Your task to perform on an android device: change the clock display to digital Image 0: 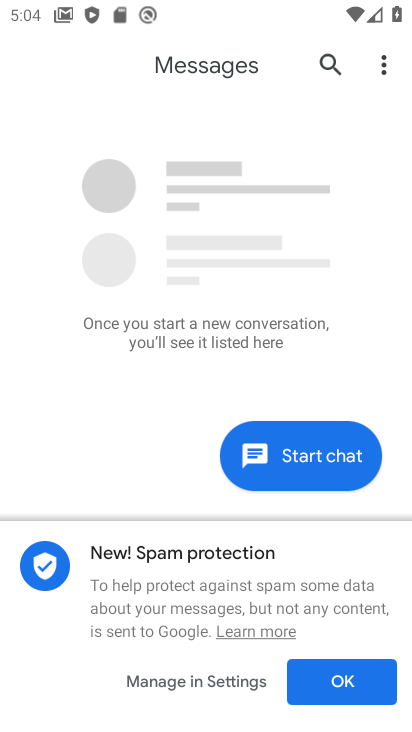
Step 0: drag from (315, 666) to (206, 102)
Your task to perform on an android device: change the clock display to digital Image 1: 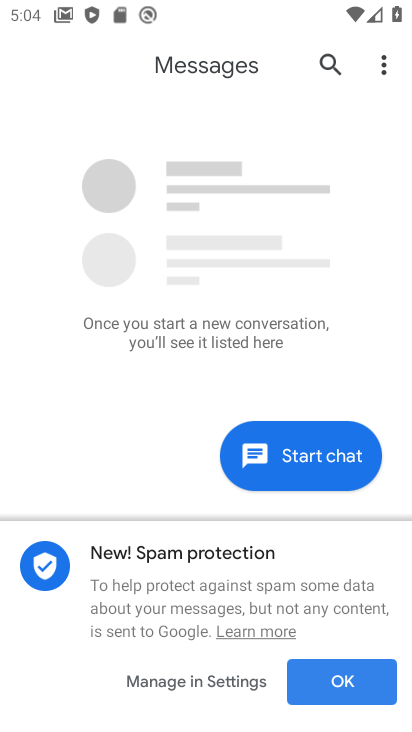
Step 1: drag from (212, 526) to (157, 112)
Your task to perform on an android device: change the clock display to digital Image 2: 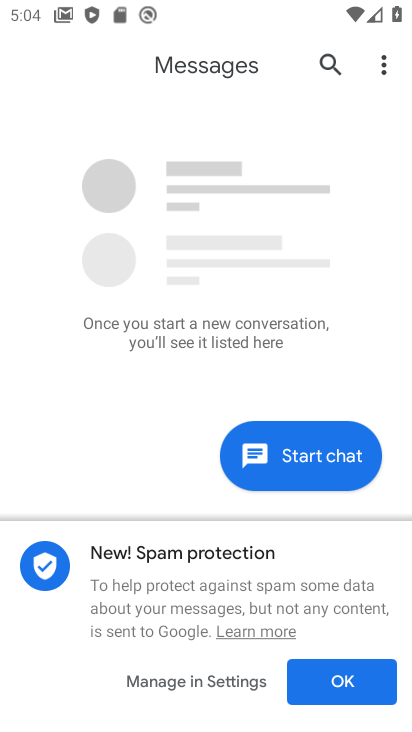
Step 2: press back button
Your task to perform on an android device: change the clock display to digital Image 3: 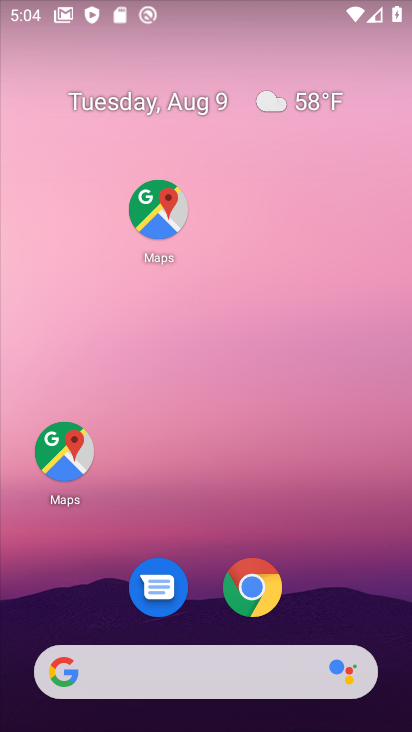
Step 3: drag from (212, 652) to (197, 126)
Your task to perform on an android device: change the clock display to digital Image 4: 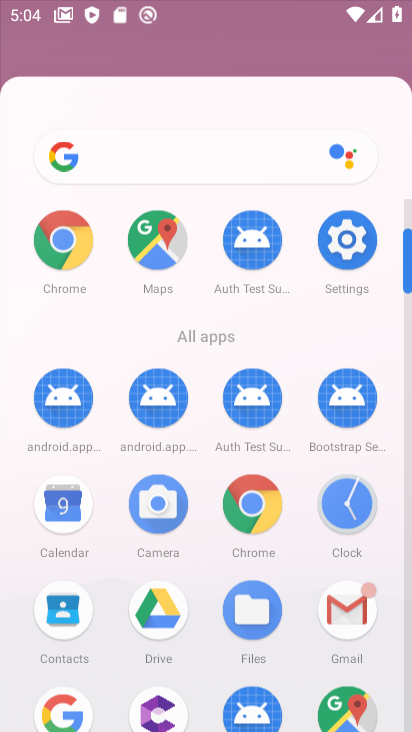
Step 4: drag from (193, 722) to (196, 213)
Your task to perform on an android device: change the clock display to digital Image 5: 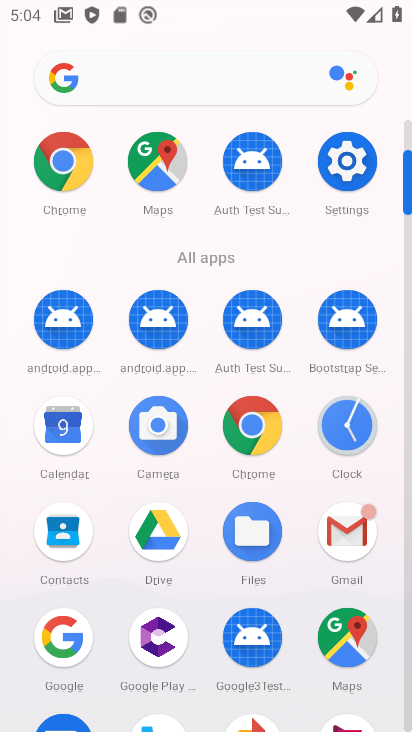
Step 5: click (343, 408)
Your task to perform on an android device: change the clock display to digital Image 6: 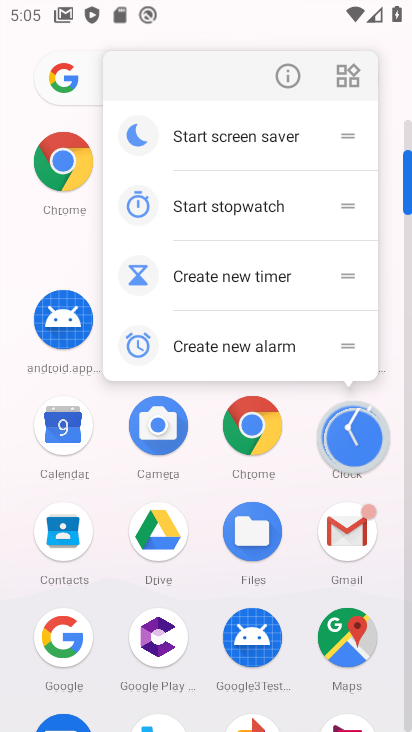
Step 6: click (349, 420)
Your task to perform on an android device: change the clock display to digital Image 7: 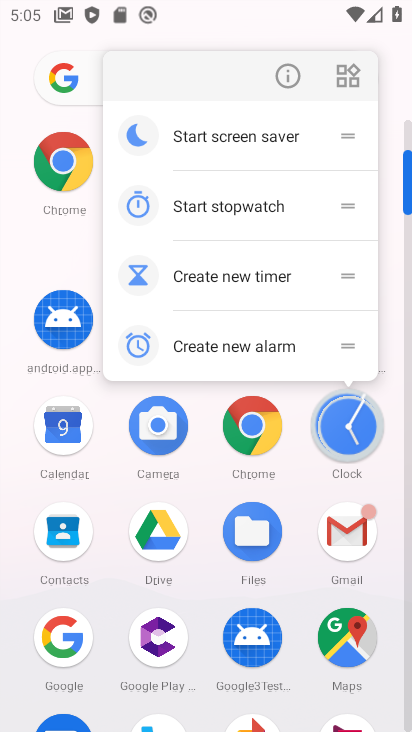
Step 7: click (349, 423)
Your task to perform on an android device: change the clock display to digital Image 8: 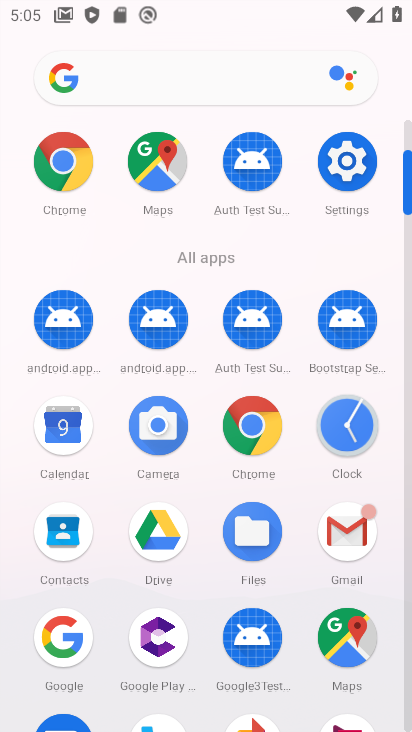
Step 8: click (350, 425)
Your task to perform on an android device: change the clock display to digital Image 9: 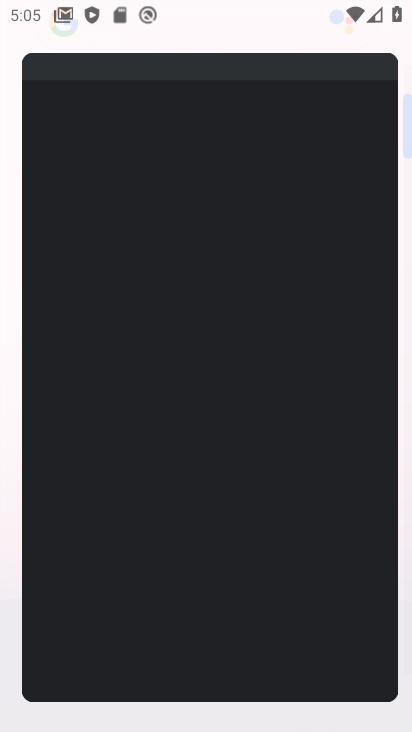
Step 9: click (351, 426)
Your task to perform on an android device: change the clock display to digital Image 10: 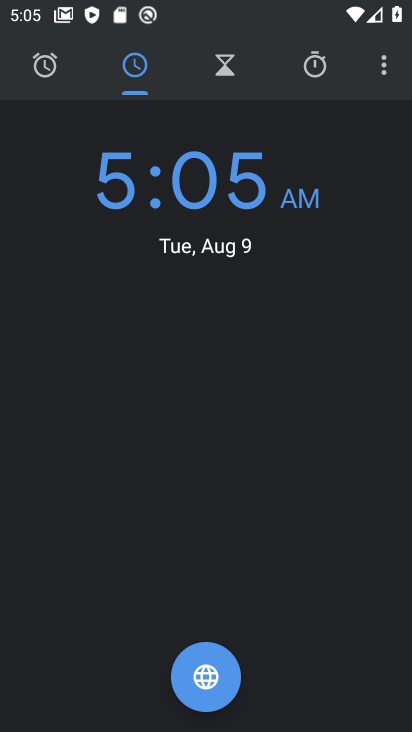
Step 10: click (381, 64)
Your task to perform on an android device: change the clock display to digital Image 11: 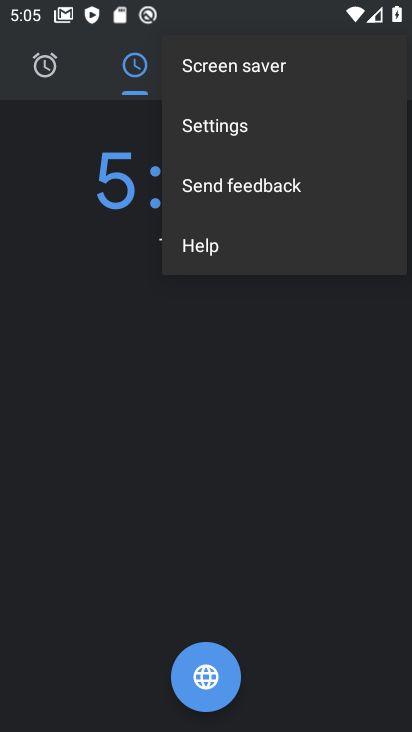
Step 11: click (211, 110)
Your task to perform on an android device: change the clock display to digital Image 12: 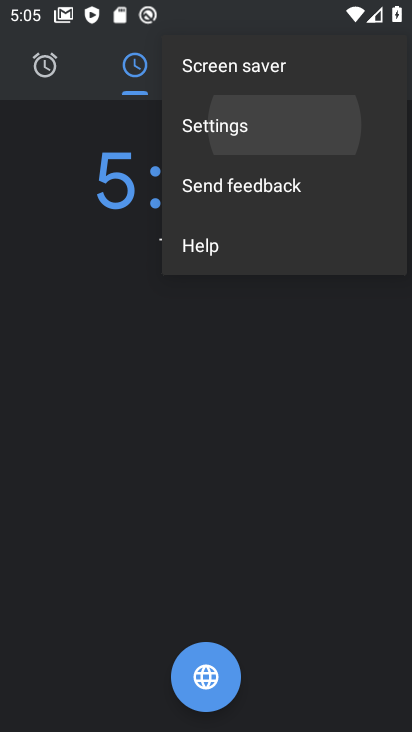
Step 12: click (211, 118)
Your task to perform on an android device: change the clock display to digital Image 13: 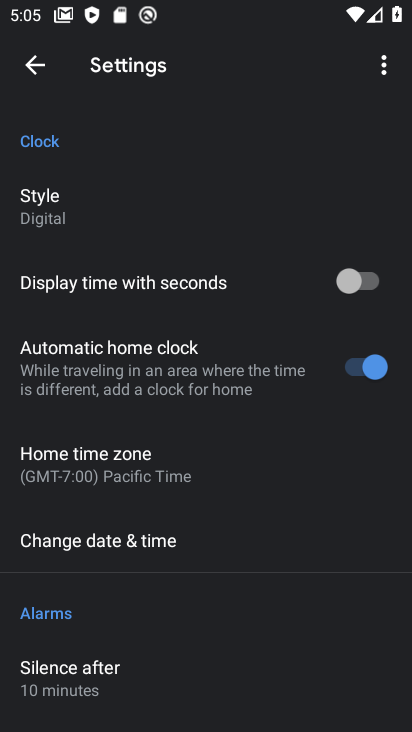
Step 13: click (81, 192)
Your task to perform on an android device: change the clock display to digital Image 14: 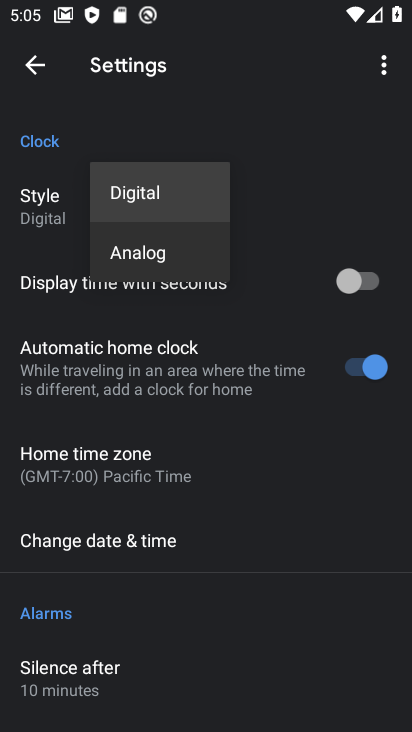
Step 14: click (145, 252)
Your task to perform on an android device: change the clock display to digital Image 15: 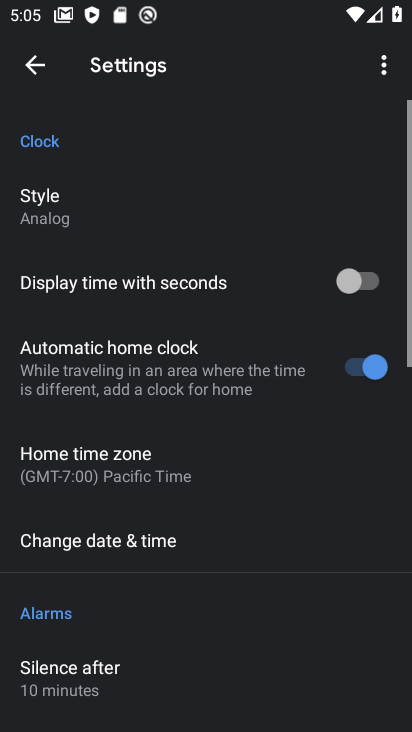
Step 15: task complete